Your task to perform on an android device: turn on showing notifications on the lock screen Image 0: 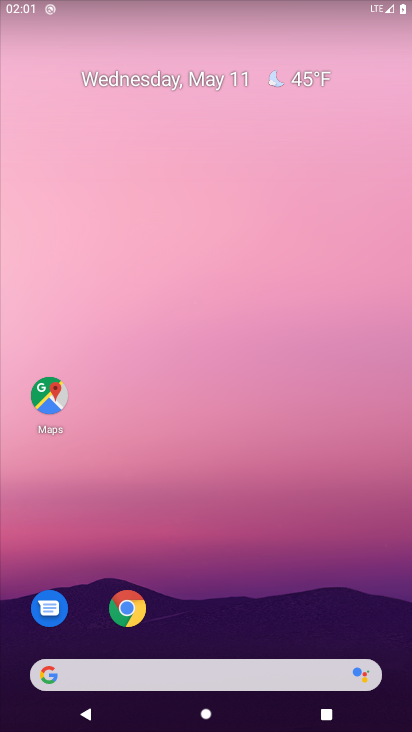
Step 0: drag from (227, 634) to (221, 148)
Your task to perform on an android device: turn on showing notifications on the lock screen Image 1: 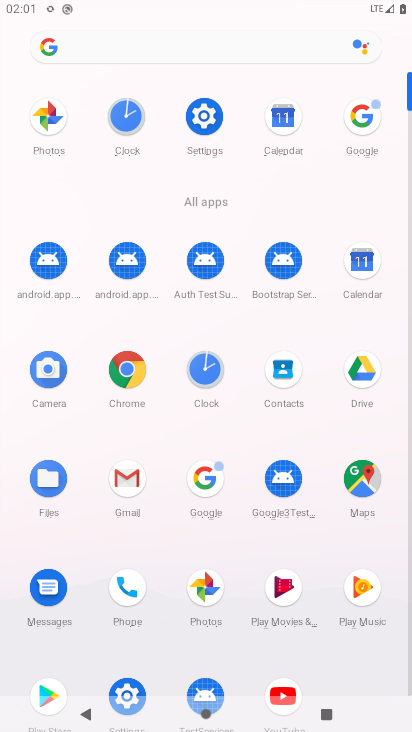
Step 1: click (201, 116)
Your task to perform on an android device: turn on showing notifications on the lock screen Image 2: 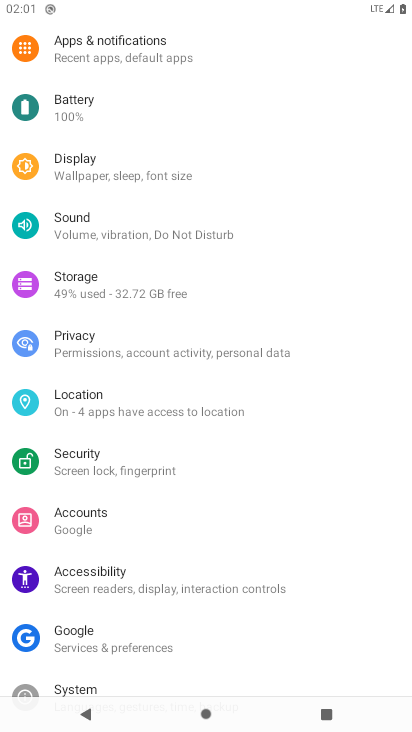
Step 2: click (118, 47)
Your task to perform on an android device: turn on showing notifications on the lock screen Image 3: 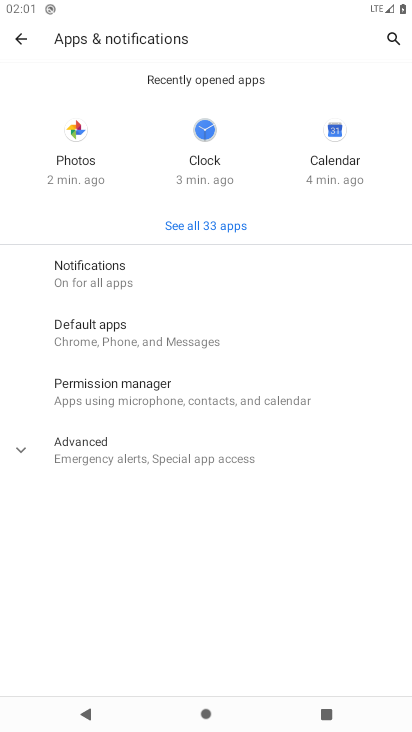
Step 3: click (140, 266)
Your task to perform on an android device: turn on showing notifications on the lock screen Image 4: 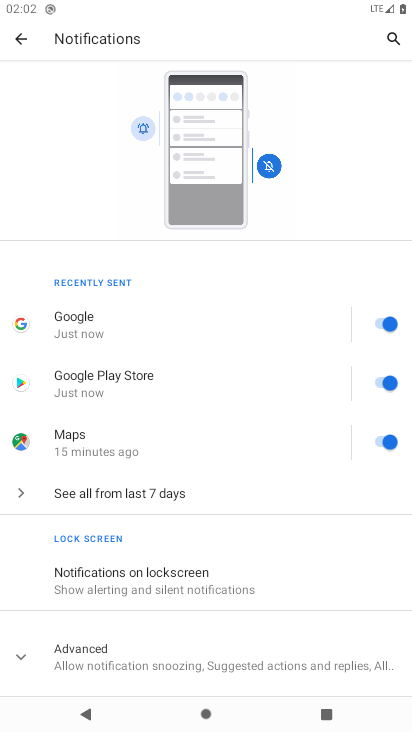
Step 4: click (210, 573)
Your task to perform on an android device: turn on showing notifications on the lock screen Image 5: 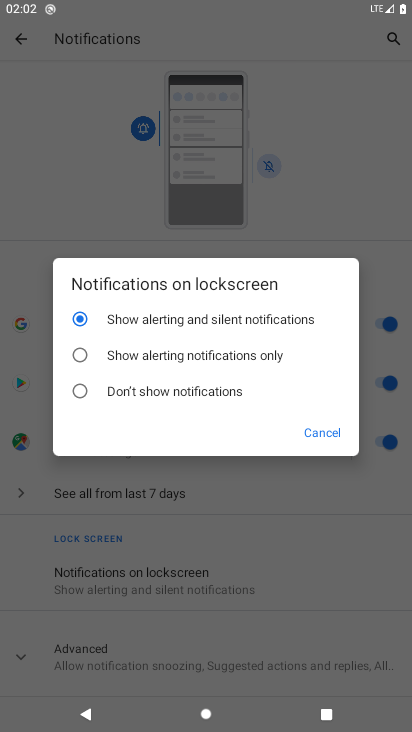
Step 5: click (158, 357)
Your task to perform on an android device: turn on showing notifications on the lock screen Image 6: 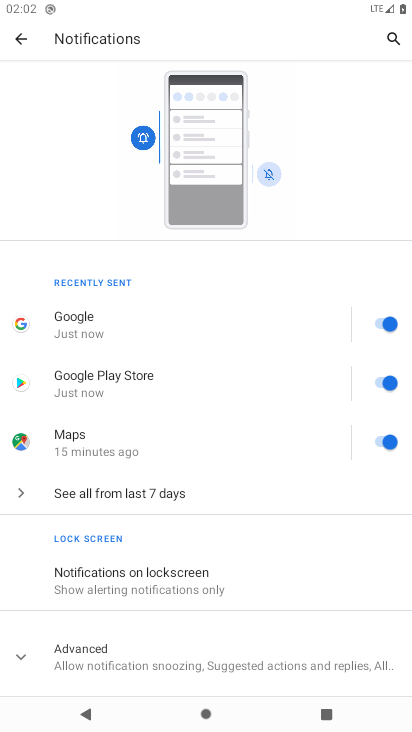
Step 6: task complete